Your task to perform on an android device: Go to ESPN.com Image 0: 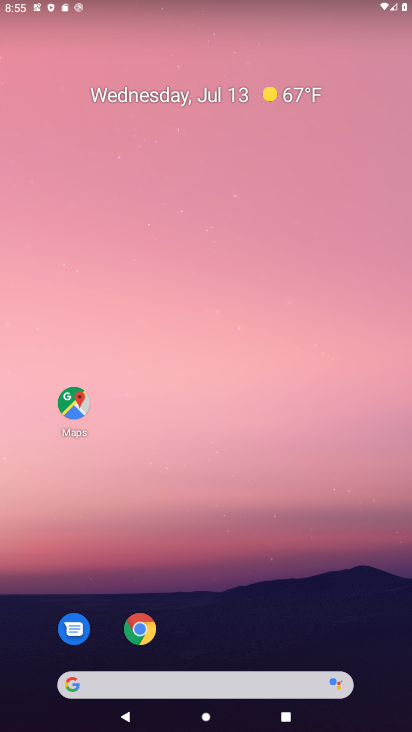
Step 0: click (146, 623)
Your task to perform on an android device: Go to ESPN.com Image 1: 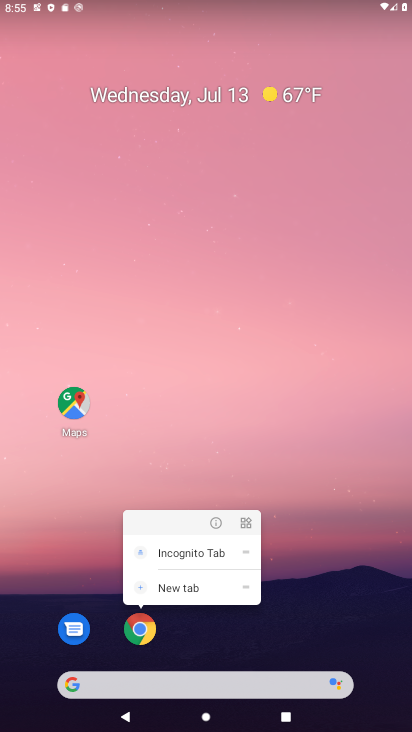
Step 1: click (146, 623)
Your task to perform on an android device: Go to ESPN.com Image 2: 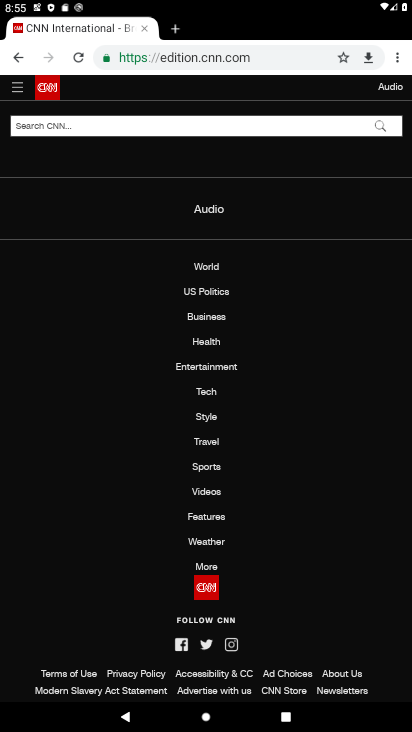
Step 2: click (168, 61)
Your task to perform on an android device: Go to ESPN.com Image 3: 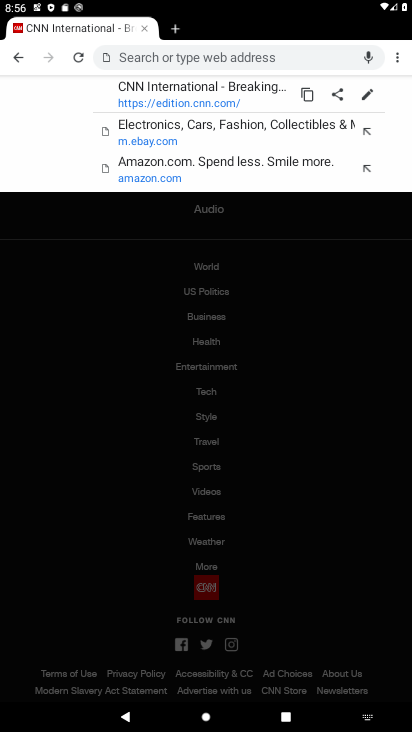
Step 3: type "ESPN.com"
Your task to perform on an android device: Go to ESPN.com Image 4: 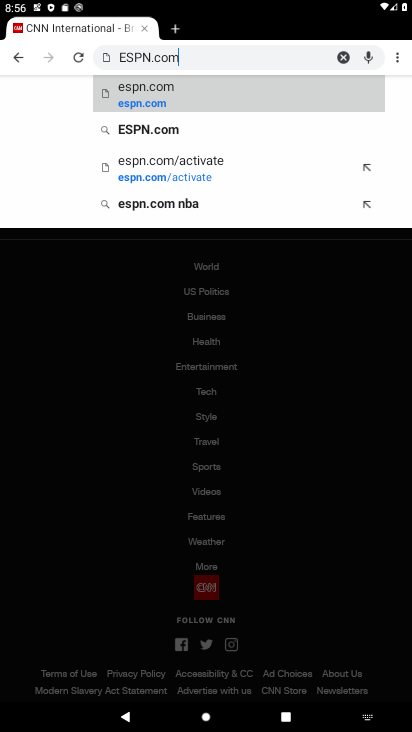
Step 4: click (176, 85)
Your task to perform on an android device: Go to ESPN.com Image 5: 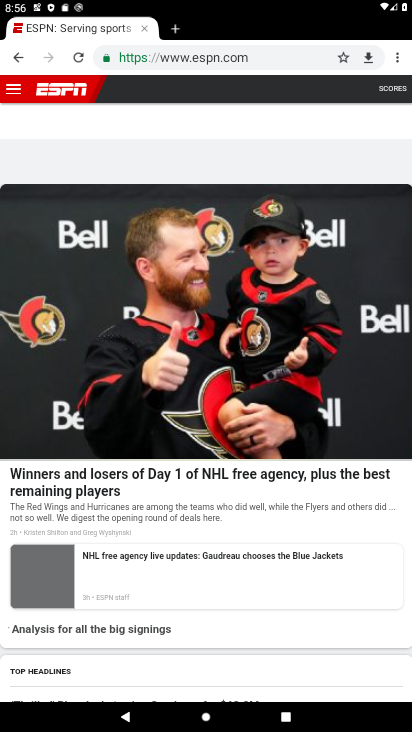
Step 5: task complete